Your task to perform on an android device: Go to wifi settings Image 0: 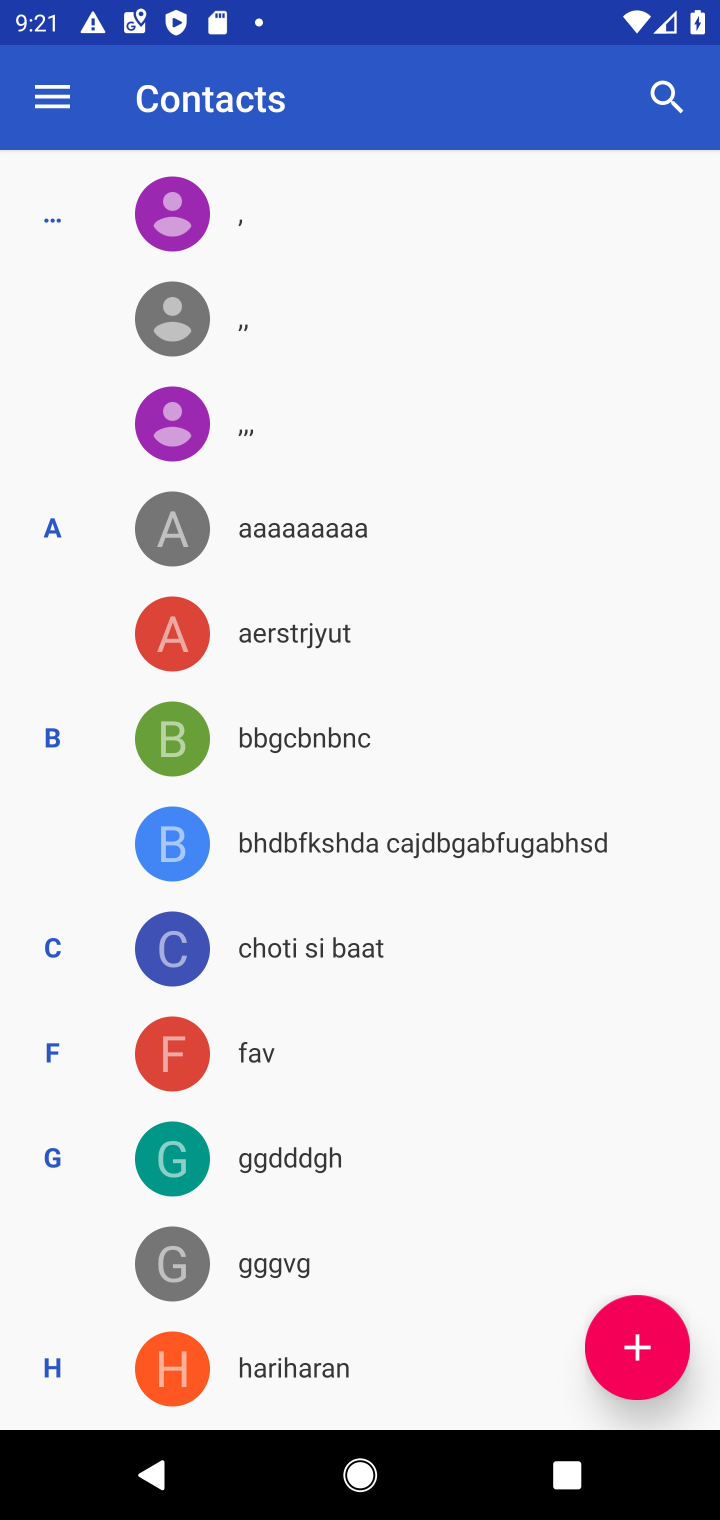
Step 0: press home button
Your task to perform on an android device: Go to wifi settings Image 1: 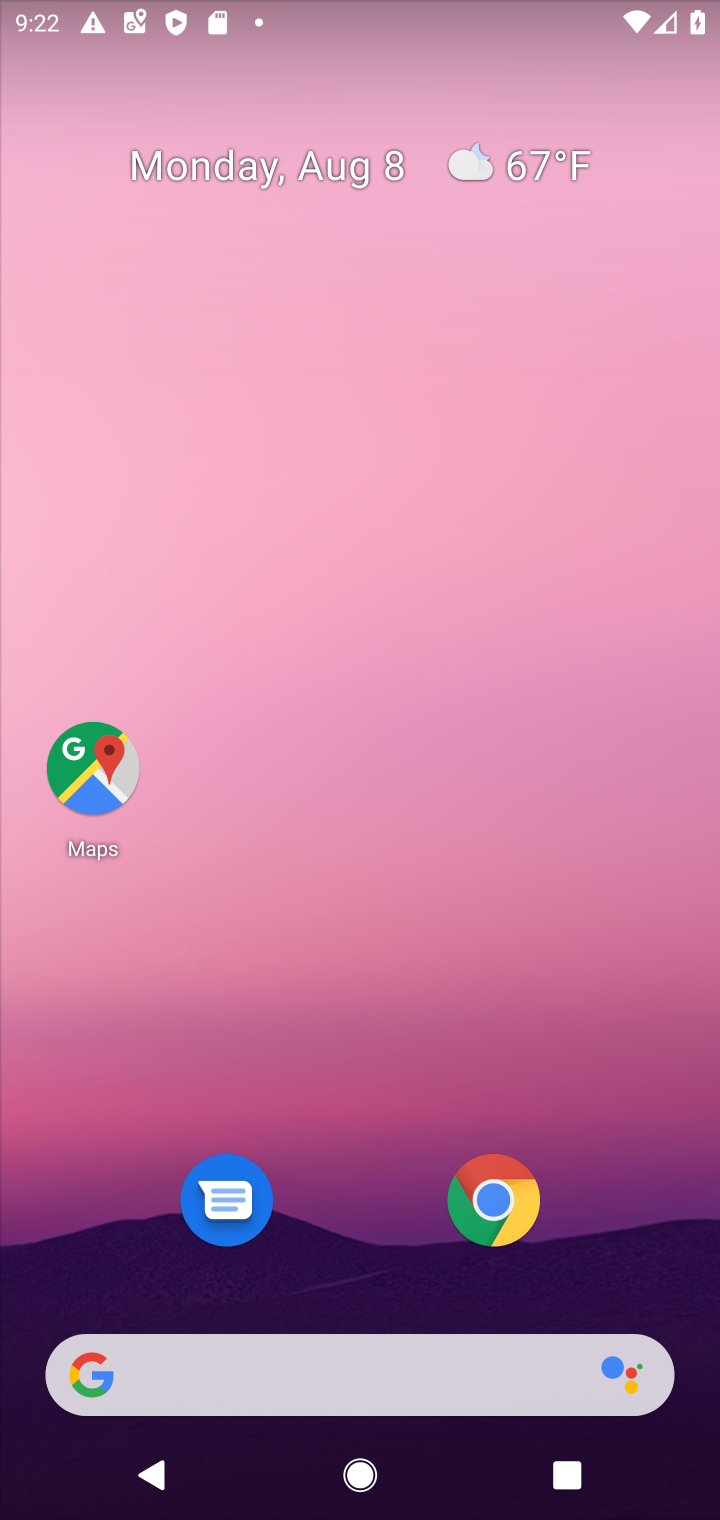
Step 1: drag from (351, 1341) to (509, 125)
Your task to perform on an android device: Go to wifi settings Image 2: 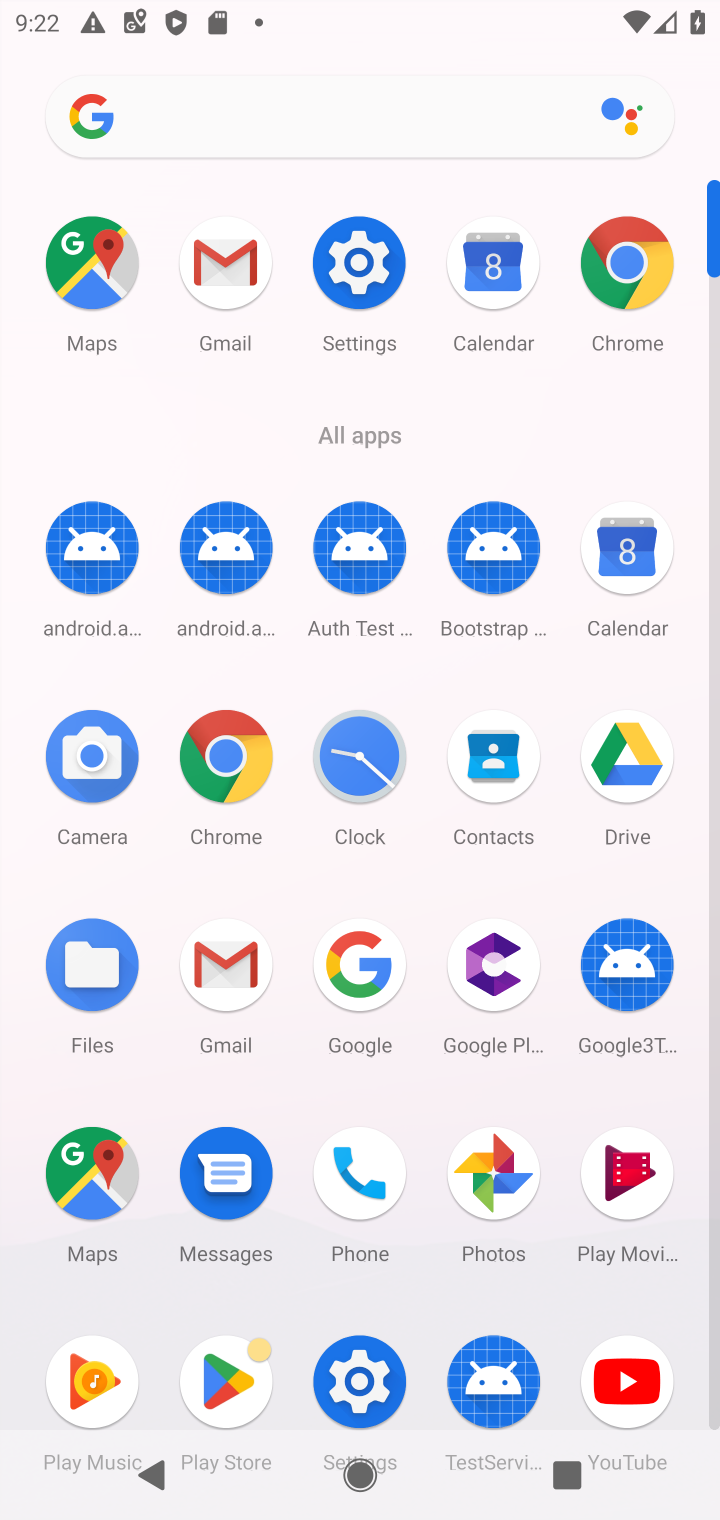
Step 2: click (359, 270)
Your task to perform on an android device: Go to wifi settings Image 3: 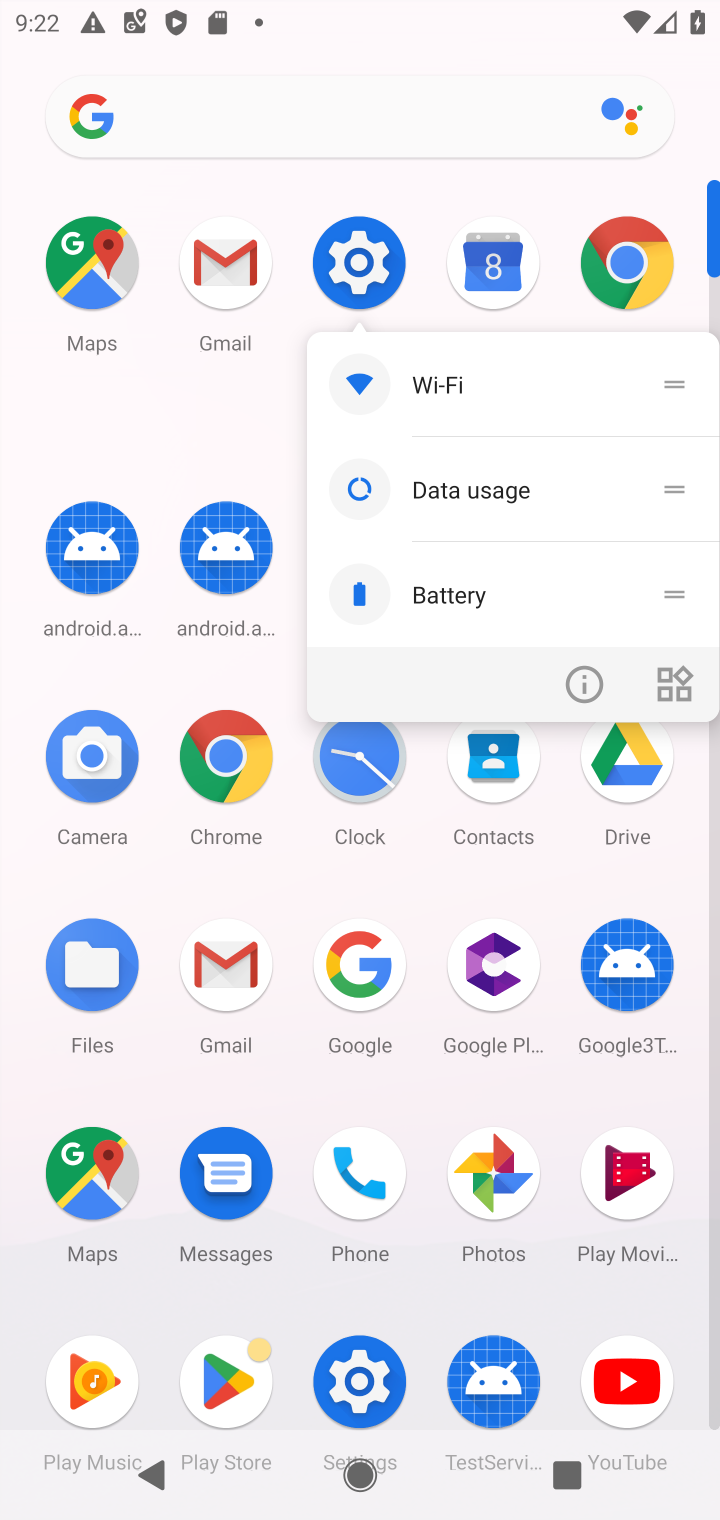
Step 3: click (359, 275)
Your task to perform on an android device: Go to wifi settings Image 4: 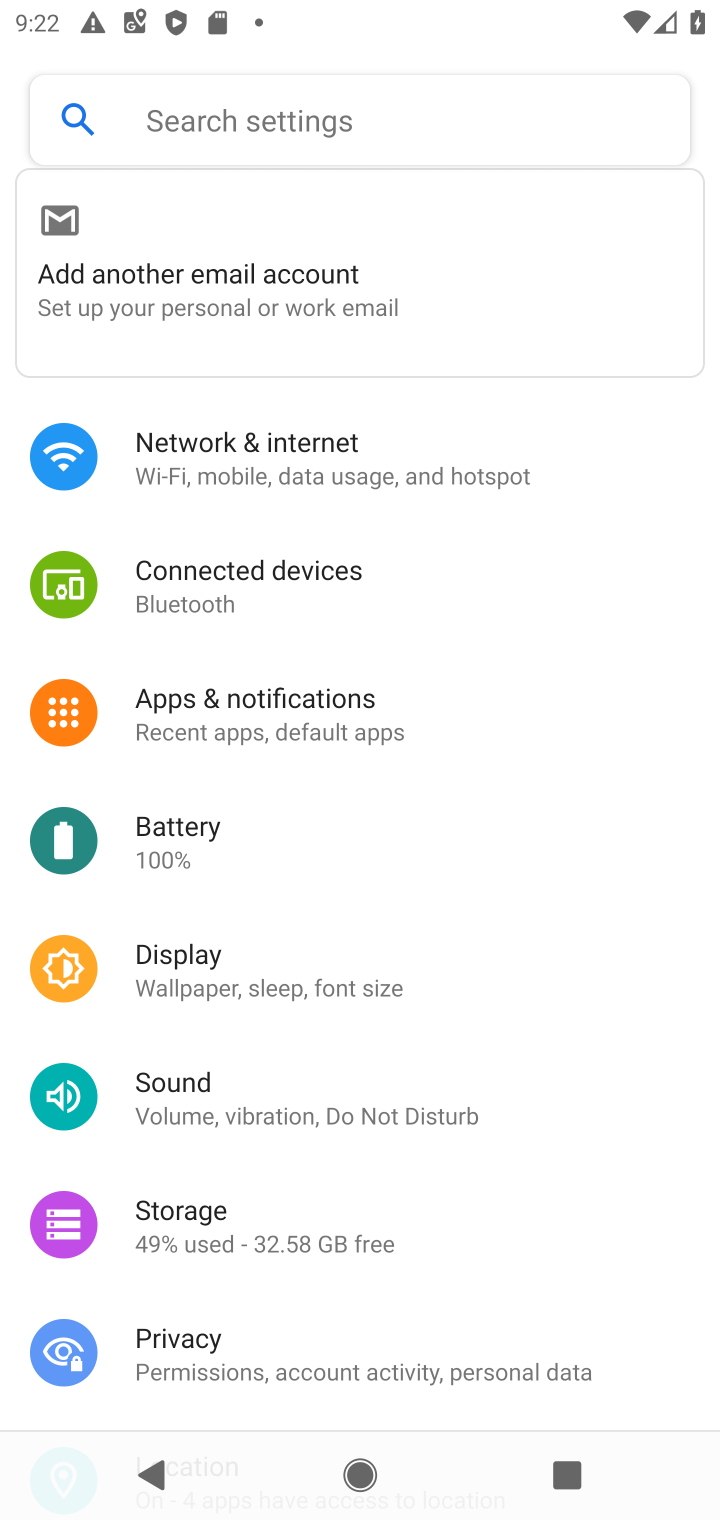
Step 4: click (282, 458)
Your task to perform on an android device: Go to wifi settings Image 5: 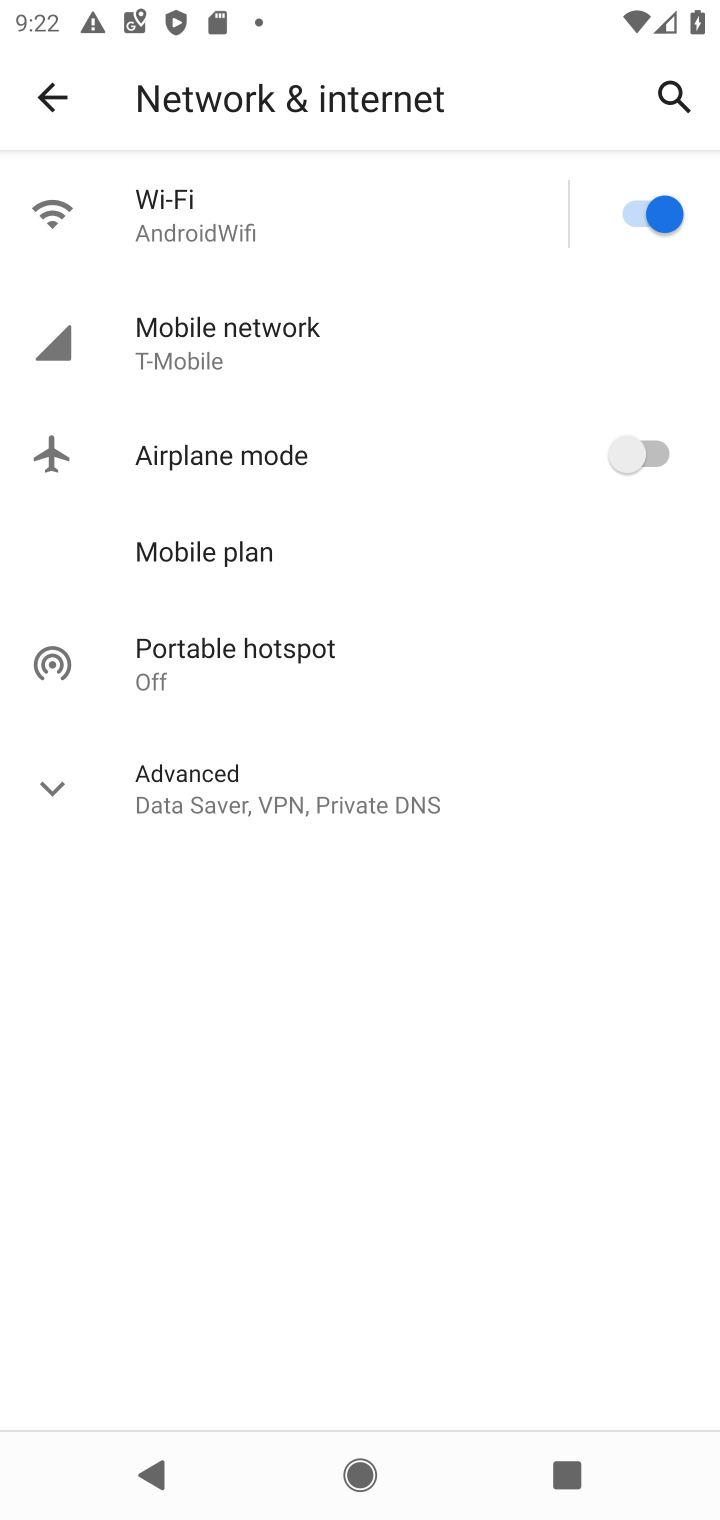
Step 5: click (178, 226)
Your task to perform on an android device: Go to wifi settings Image 6: 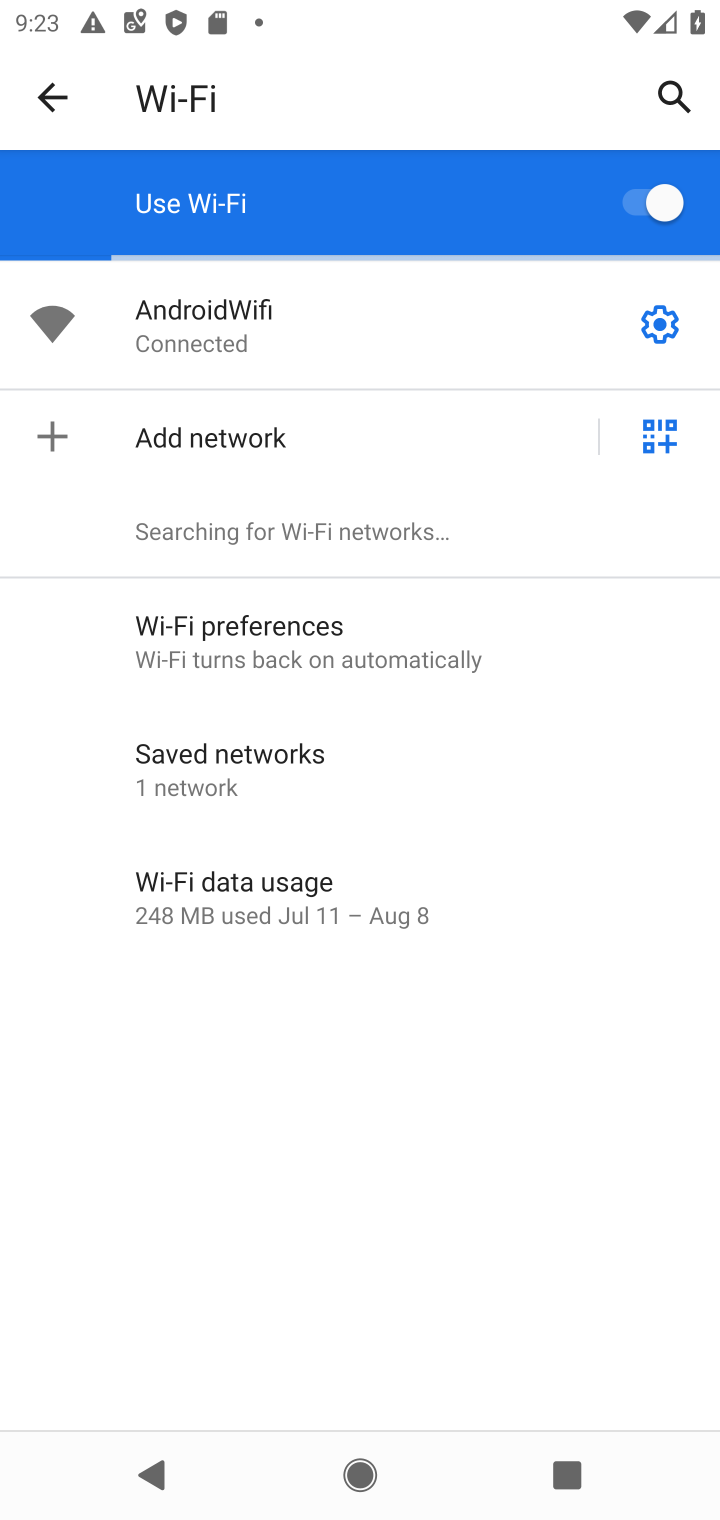
Step 6: task complete